Your task to perform on an android device: Open settings Image 0: 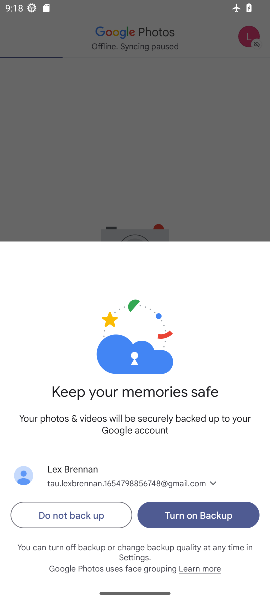
Step 0: press home button
Your task to perform on an android device: Open settings Image 1: 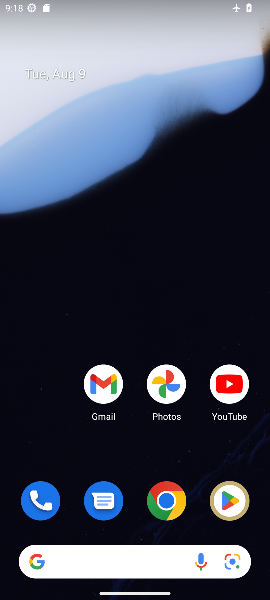
Step 1: drag from (134, 520) to (179, 1)
Your task to perform on an android device: Open settings Image 2: 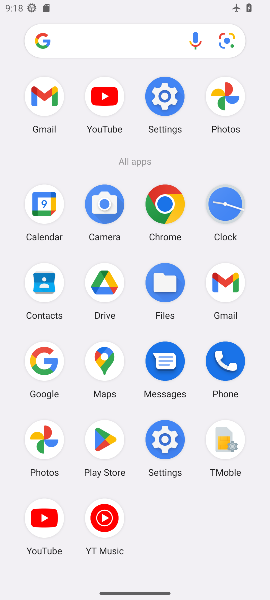
Step 2: click (163, 90)
Your task to perform on an android device: Open settings Image 3: 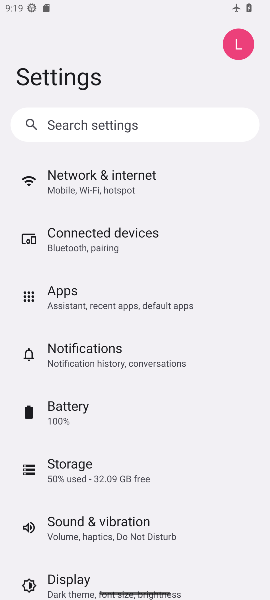
Step 3: task complete